Your task to perform on an android device: Search for Italian restaurants on Maps Image 0: 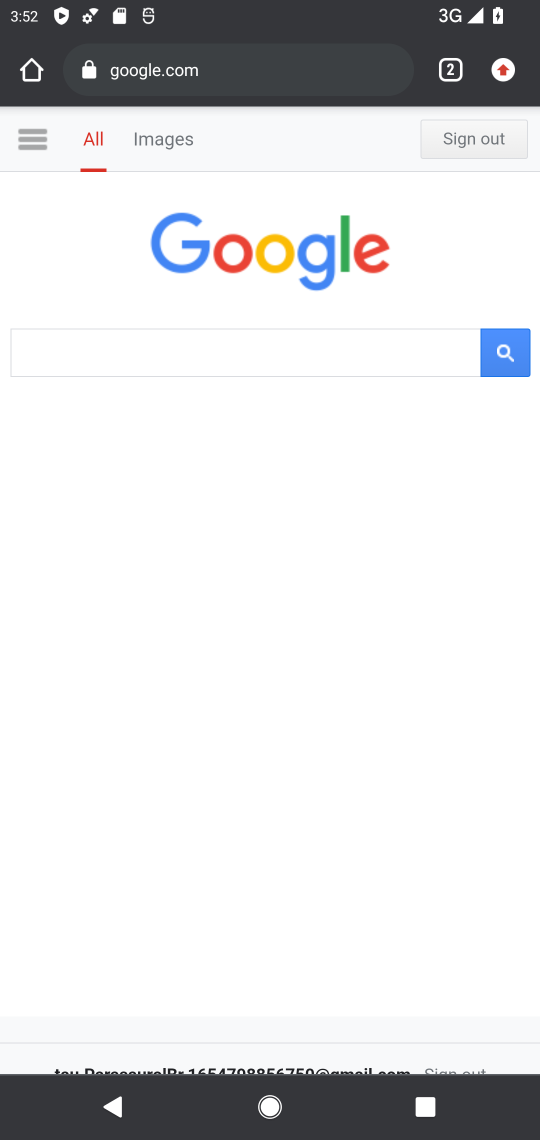
Step 0: press back button
Your task to perform on an android device: Search for Italian restaurants on Maps Image 1: 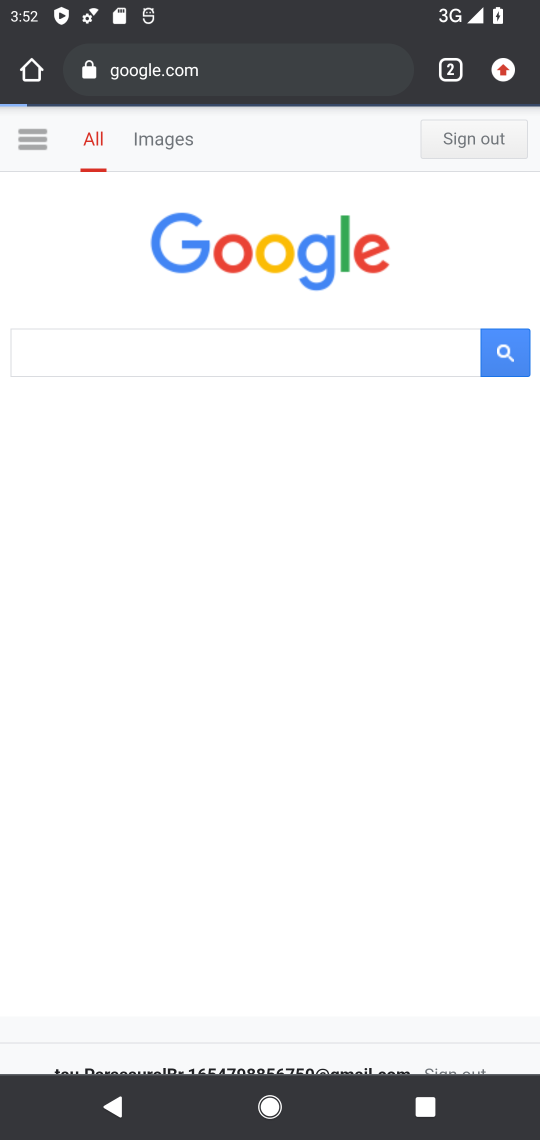
Step 1: press home button
Your task to perform on an android device: Search for Italian restaurants on Maps Image 2: 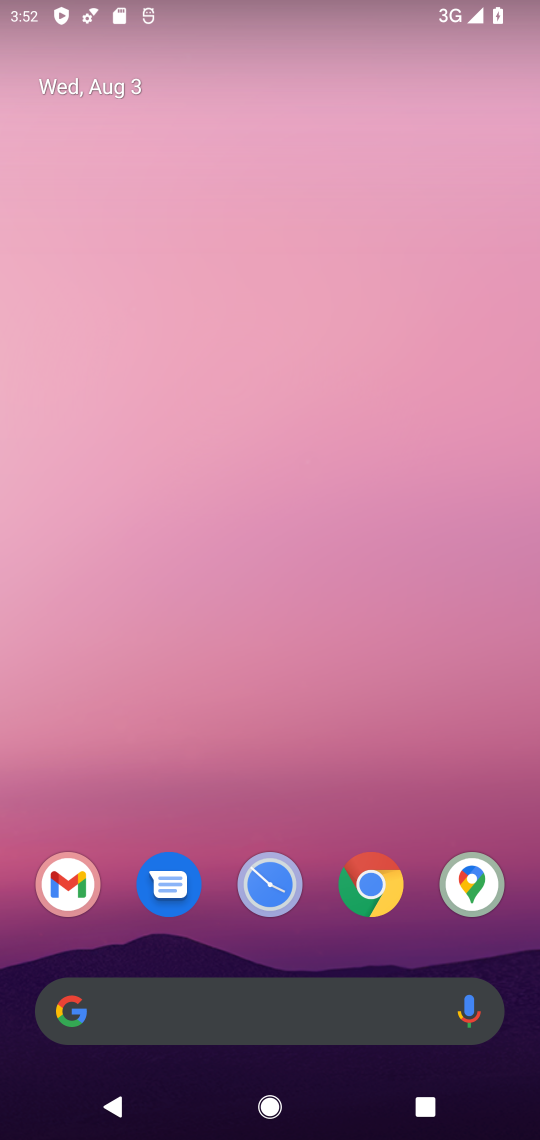
Step 2: click (454, 865)
Your task to perform on an android device: Search for Italian restaurants on Maps Image 3: 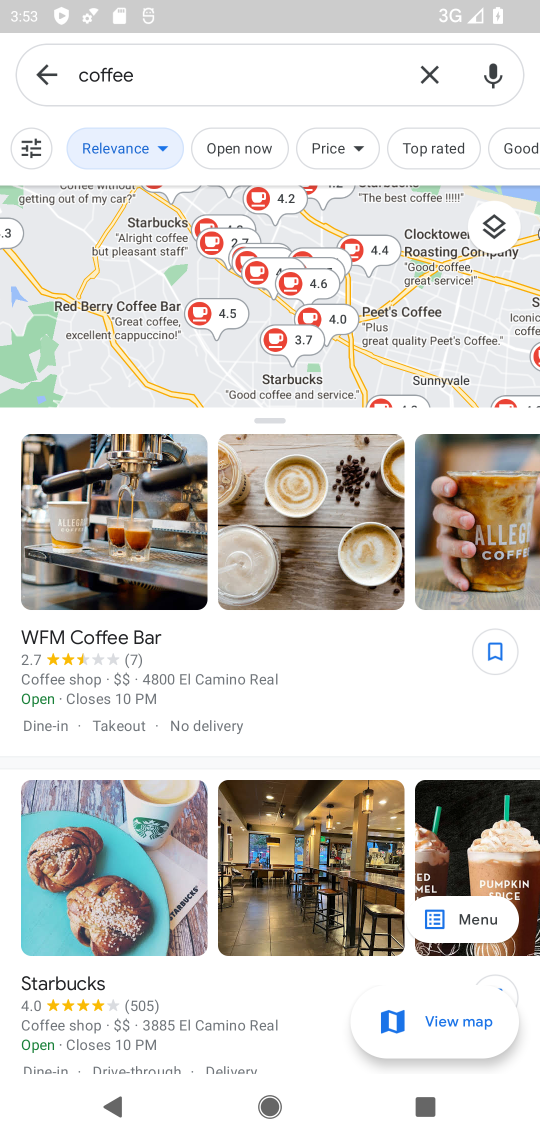
Step 3: click (419, 81)
Your task to perform on an android device: Search for Italian restaurants on Maps Image 4: 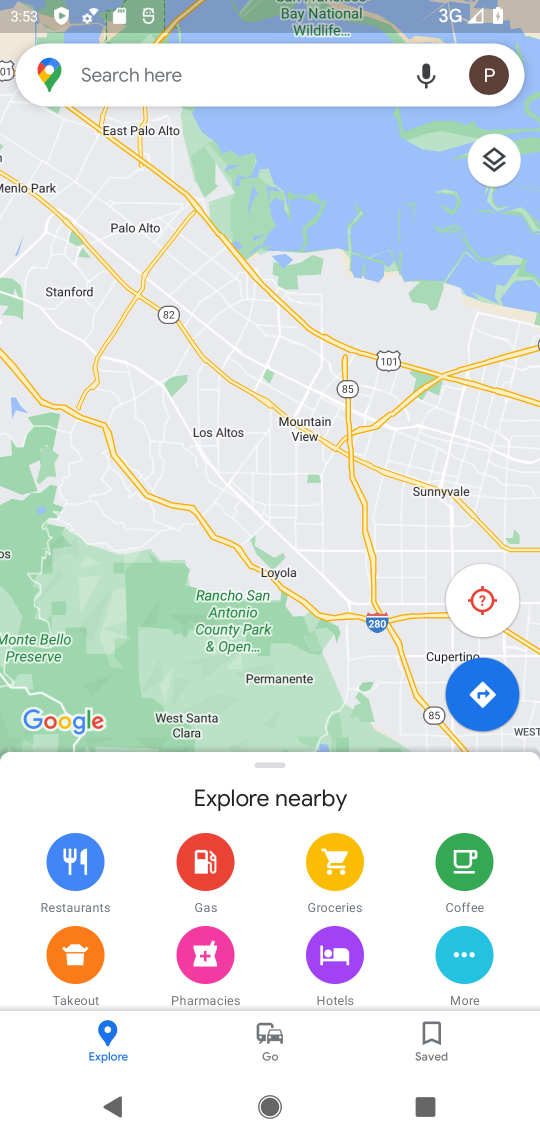
Step 4: click (431, 81)
Your task to perform on an android device: Search for Italian restaurants on Maps Image 5: 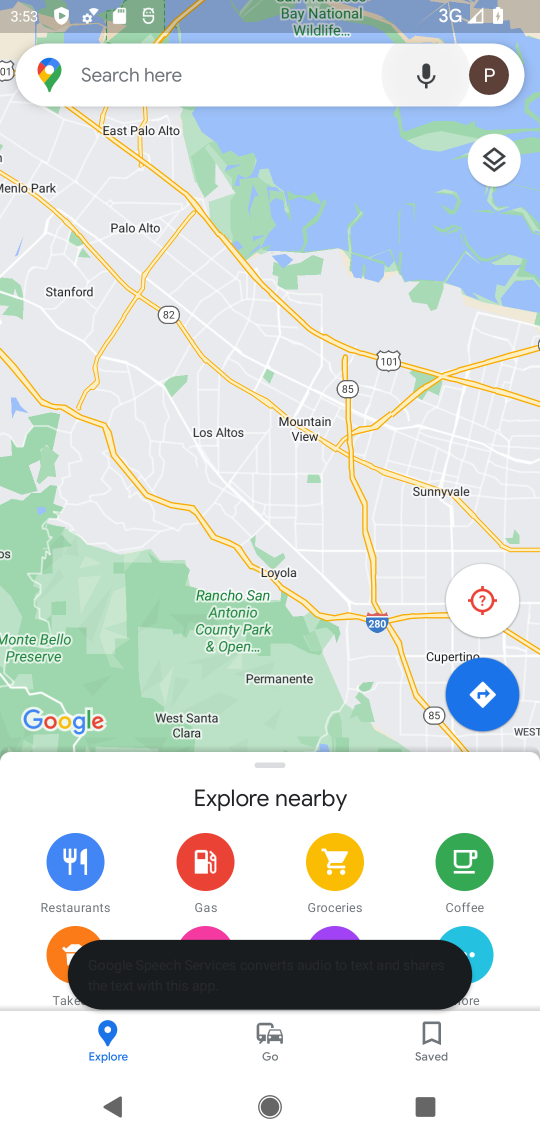
Step 5: click (300, 81)
Your task to perform on an android device: Search for Italian restaurants on Maps Image 6: 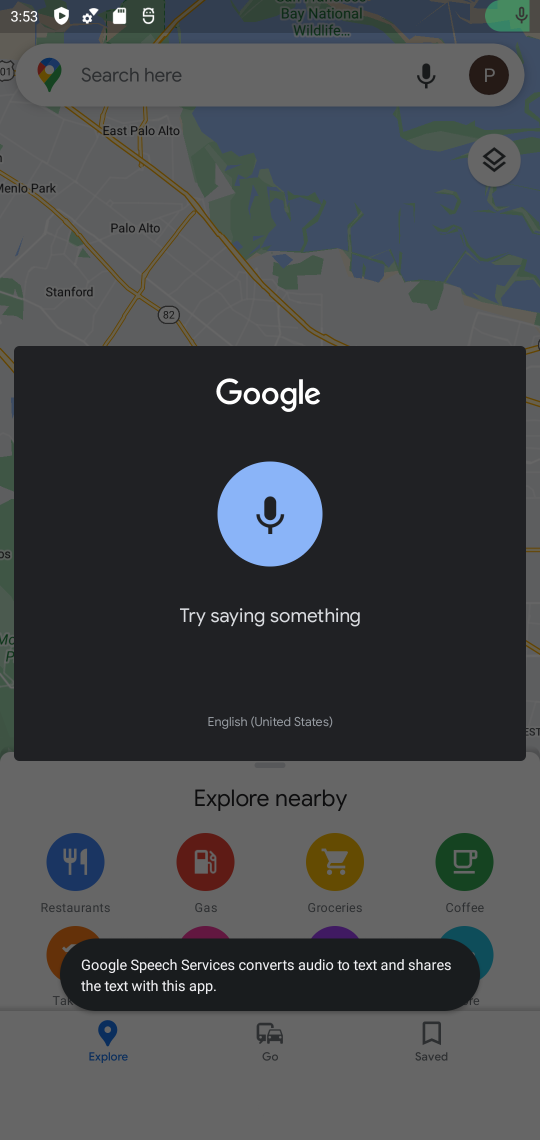
Step 6: click (300, 81)
Your task to perform on an android device: Search for Italian restaurants on Maps Image 7: 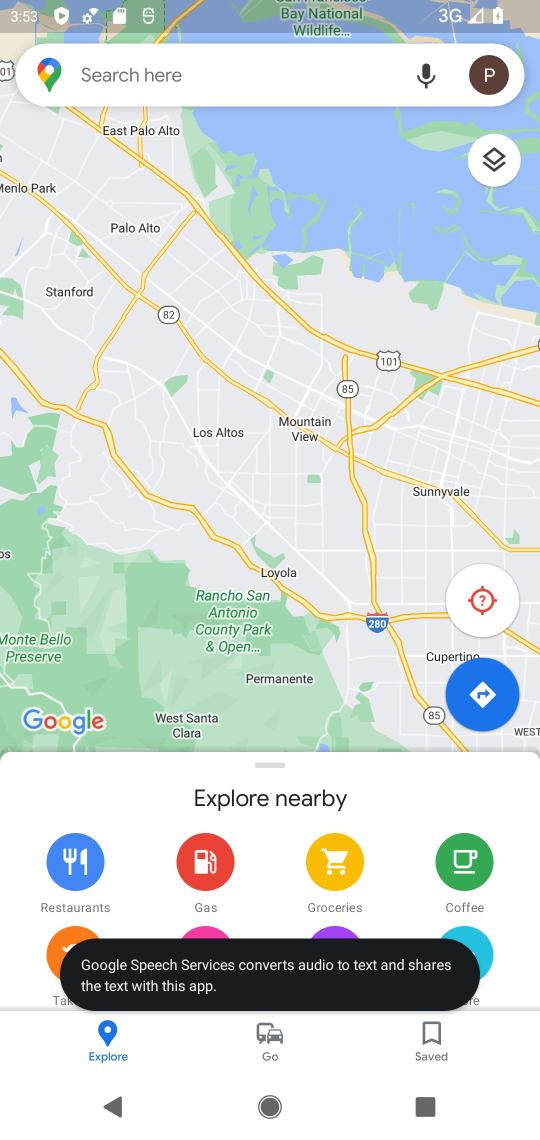
Step 7: click (300, 81)
Your task to perform on an android device: Search for Italian restaurants on Maps Image 8: 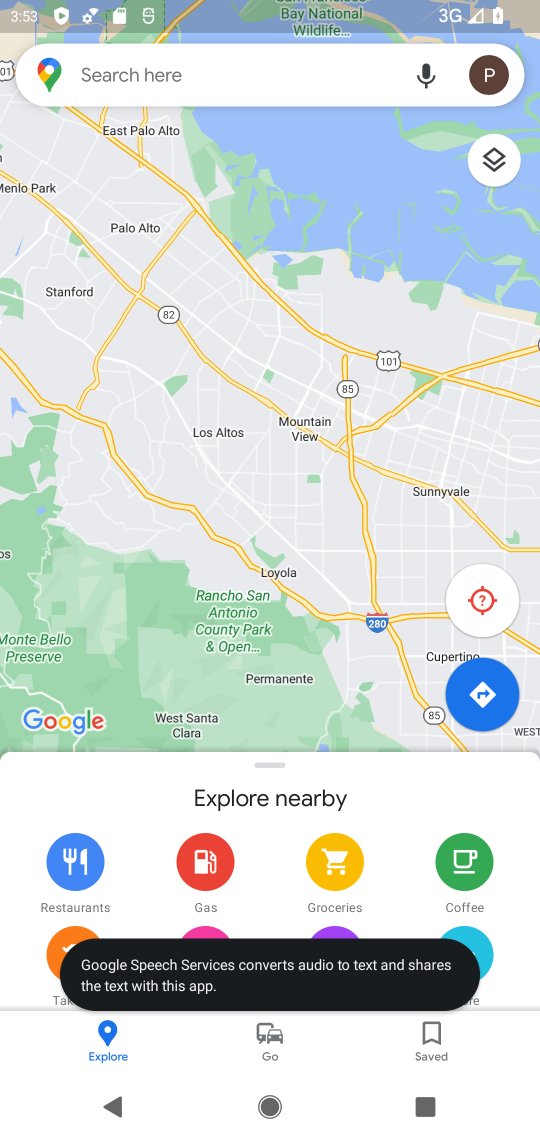
Step 8: click (300, 81)
Your task to perform on an android device: Search for Italian restaurants on Maps Image 9: 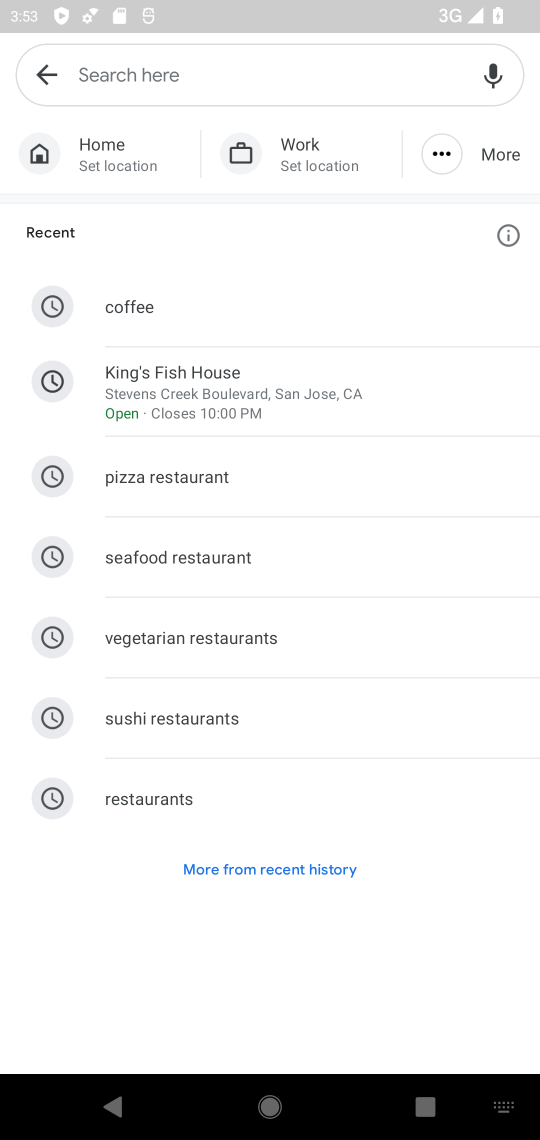
Step 9: type "ittalian"
Your task to perform on an android device: Search for Italian restaurants on Maps Image 10: 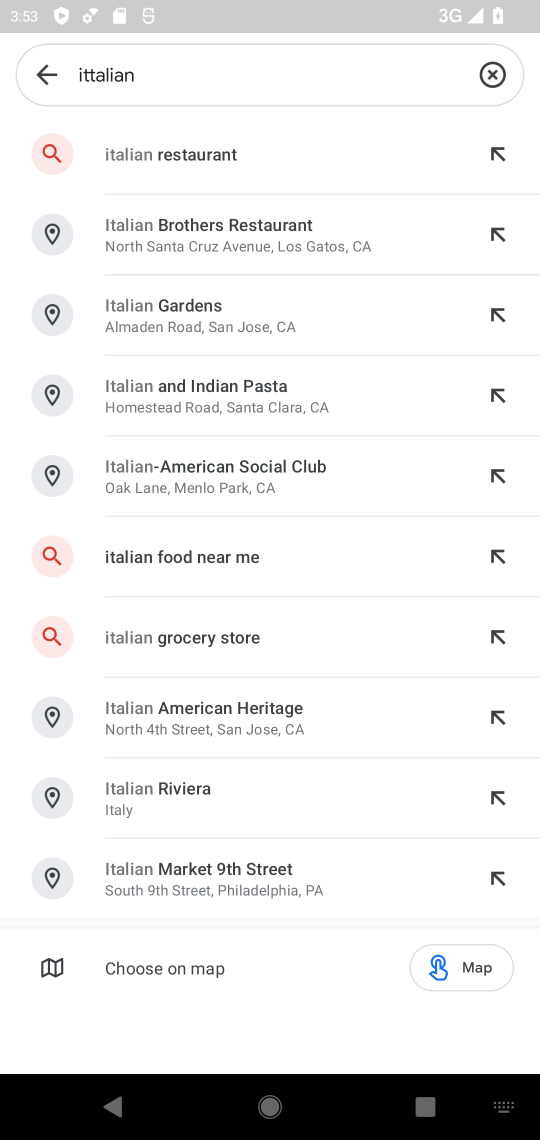
Step 10: click (193, 172)
Your task to perform on an android device: Search for Italian restaurants on Maps Image 11: 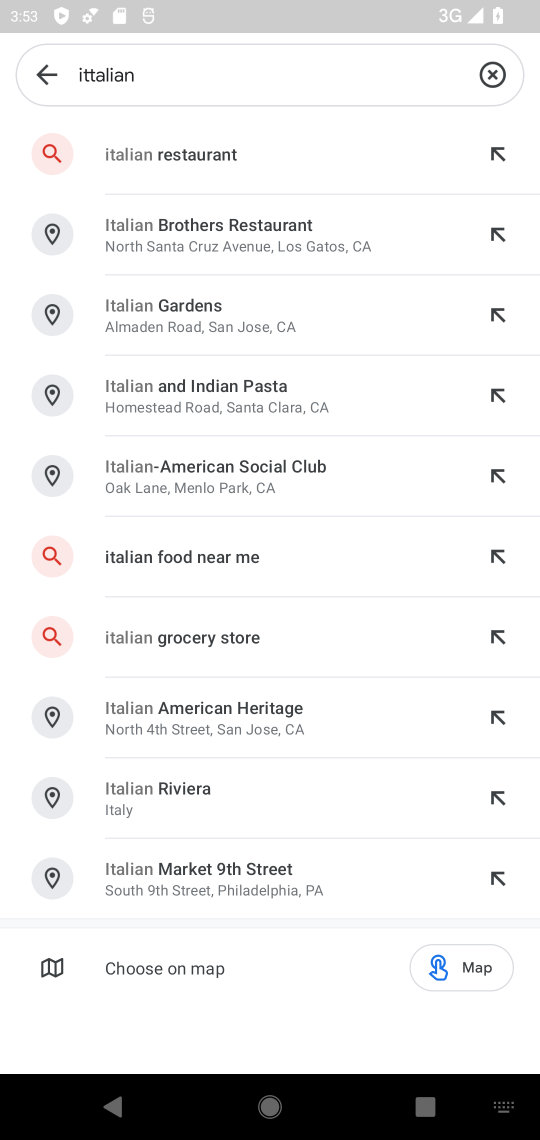
Step 11: task complete